Your task to perform on an android device: change the clock display to show seconds Image 0: 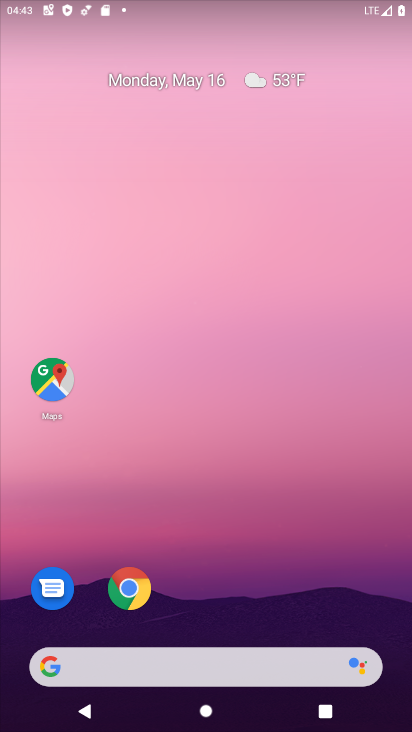
Step 0: drag from (211, 563) to (176, 0)
Your task to perform on an android device: change the clock display to show seconds Image 1: 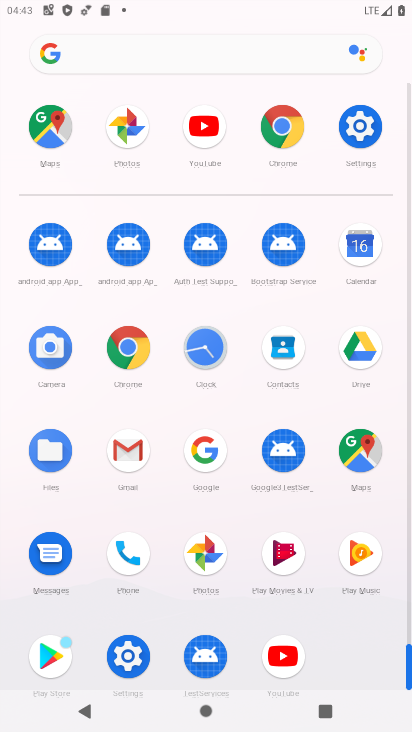
Step 1: drag from (8, 528) to (16, 224)
Your task to perform on an android device: change the clock display to show seconds Image 2: 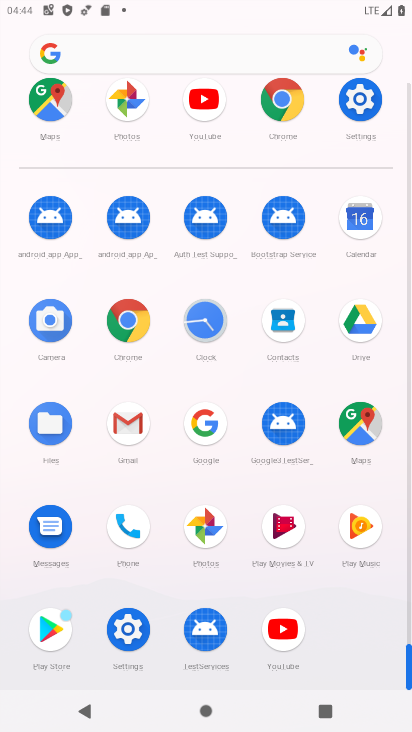
Step 2: click (206, 322)
Your task to perform on an android device: change the clock display to show seconds Image 3: 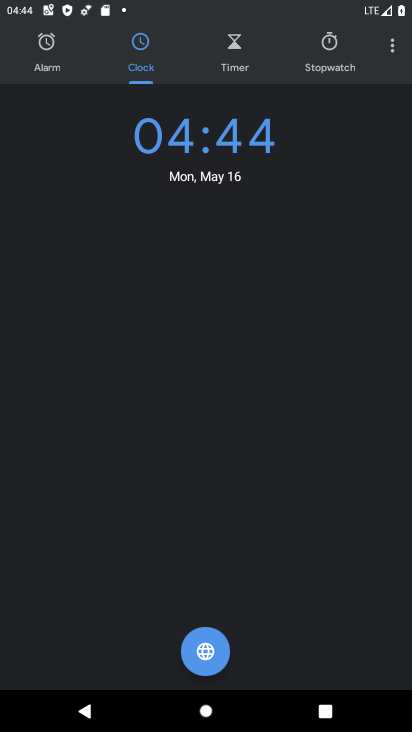
Step 3: drag from (391, 43) to (338, 87)
Your task to perform on an android device: change the clock display to show seconds Image 4: 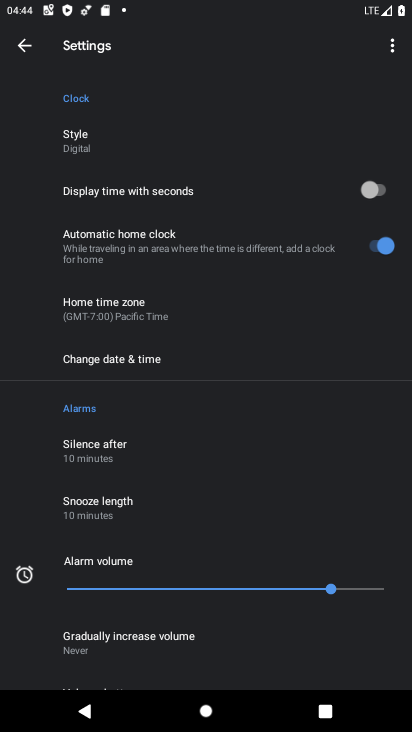
Step 4: drag from (187, 470) to (178, 169)
Your task to perform on an android device: change the clock display to show seconds Image 5: 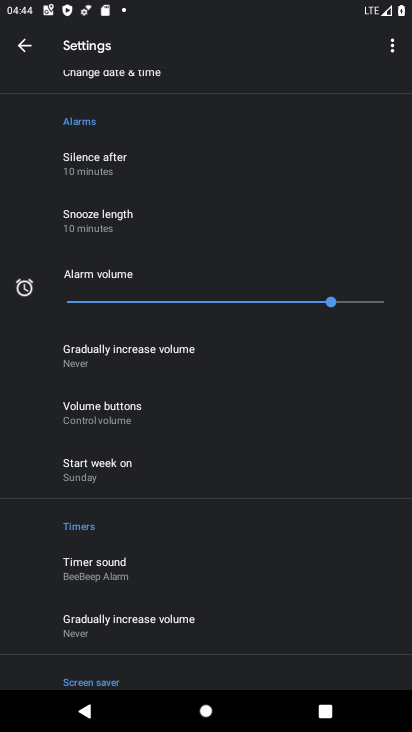
Step 5: drag from (186, 149) to (165, 476)
Your task to perform on an android device: change the clock display to show seconds Image 6: 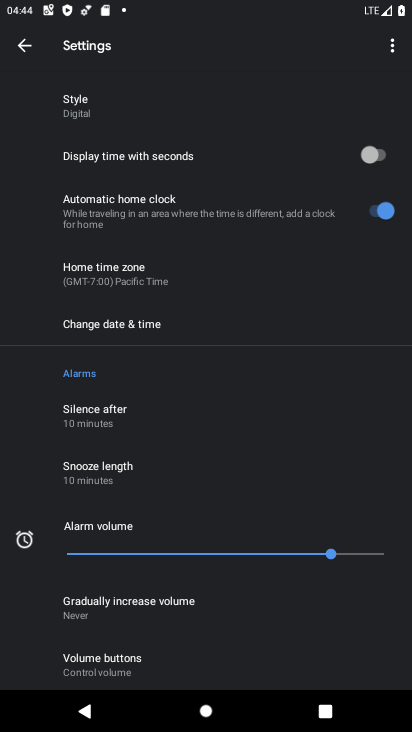
Step 6: click (374, 152)
Your task to perform on an android device: change the clock display to show seconds Image 7: 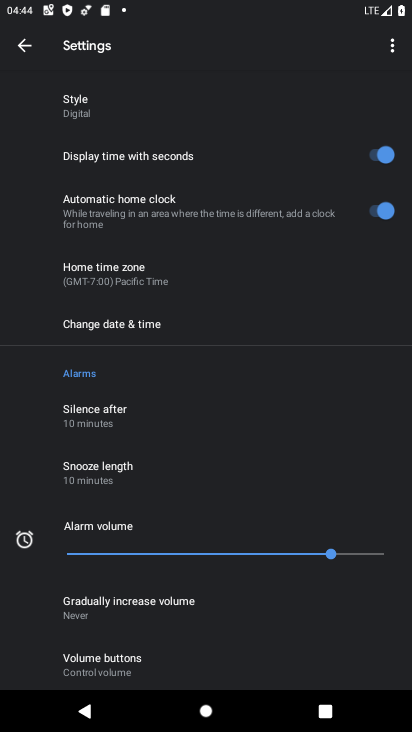
Step 7: task complete